Your task to perform on an android device: Open notification settings Image 0: 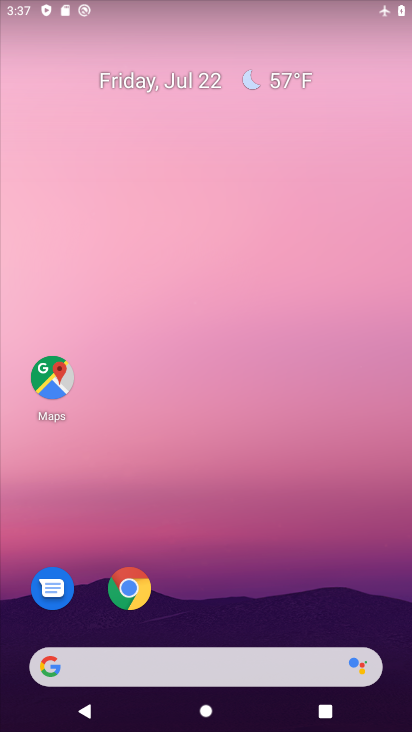
Step 0: drag from (198, 632) to (280, 18)
Your task to perform on an android device: Open notification settings Image 1: 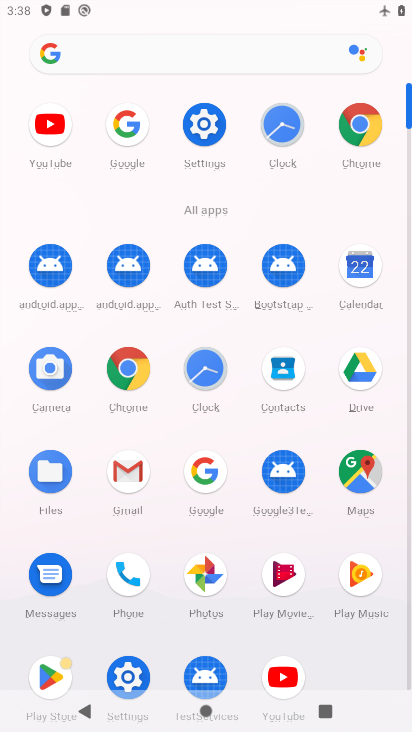
Step 1: click (201, 121)
Your task to perform on an android device: Open notification settings Image 2: 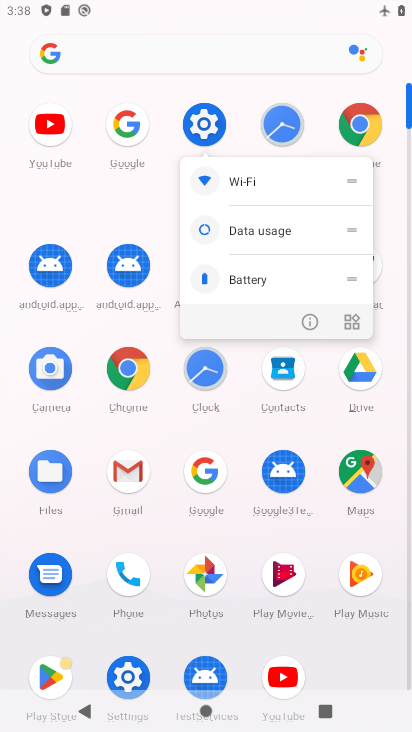
Step 2: click (201, 129)
Your task to perform on an android device: Open notification settings Image 3: 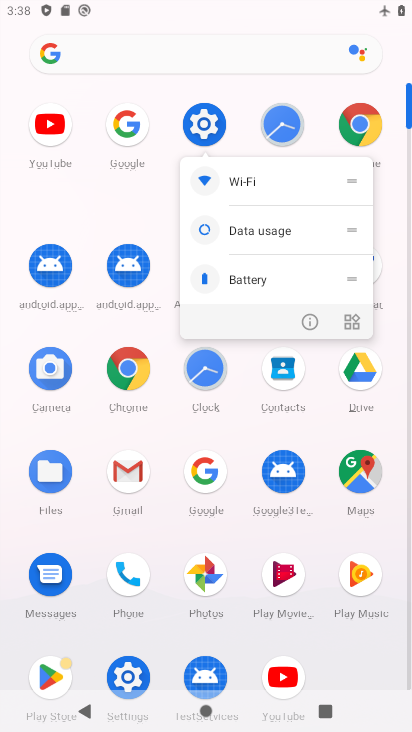
Step 3: click (200, 125)
Your task to perform on an android device: Open notification settings Image 4: 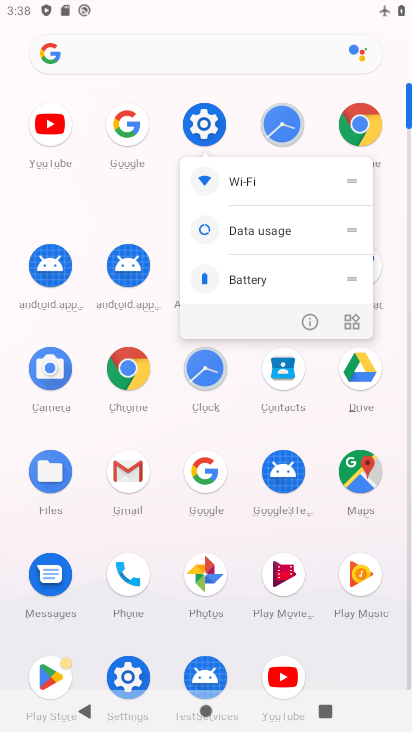
Step 4: click (192, 126)
Your task to perform on an android device: Open notification settings Image 5: 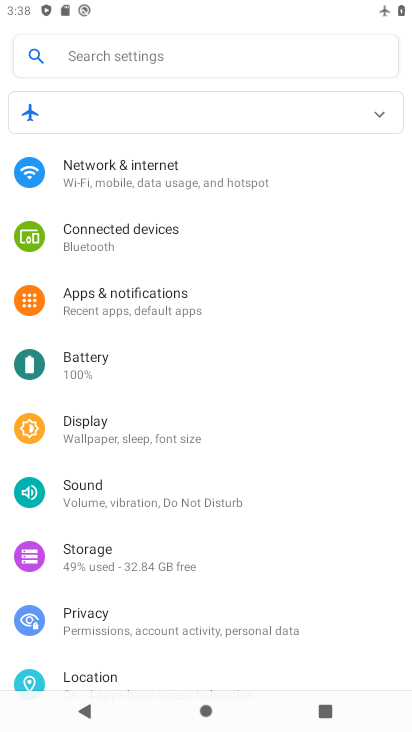
Step 5: click (135, 300)
Your task to perform on an android device: Open notification settings Image 6: 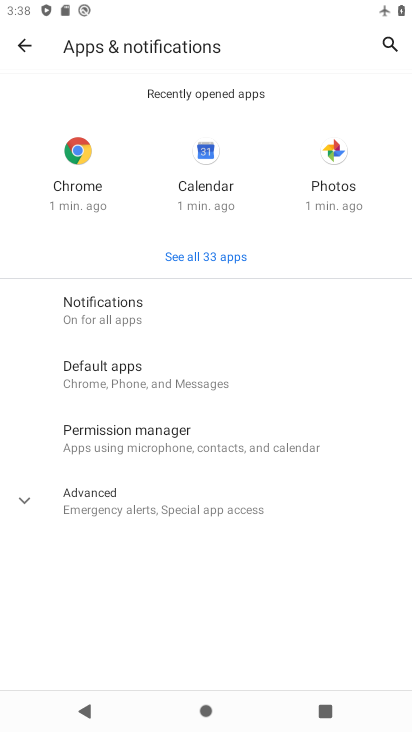
Step 6: click (124, 306)
Your task to perform on an android device: Open notification settings Image 7: 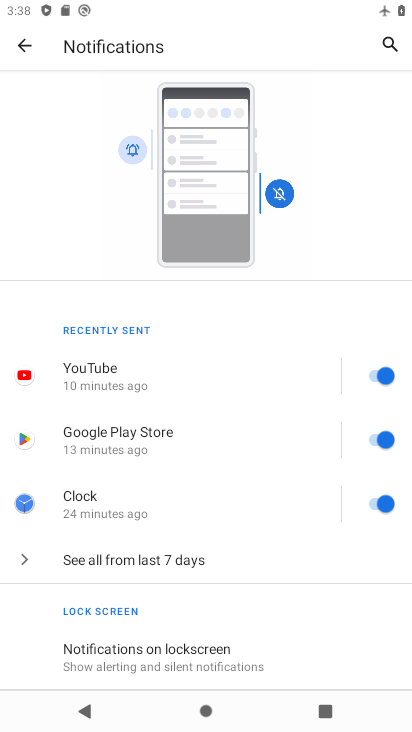
Step 7: task complete